Your task to perform on an android device: Open settings on Google Maps Image 0: 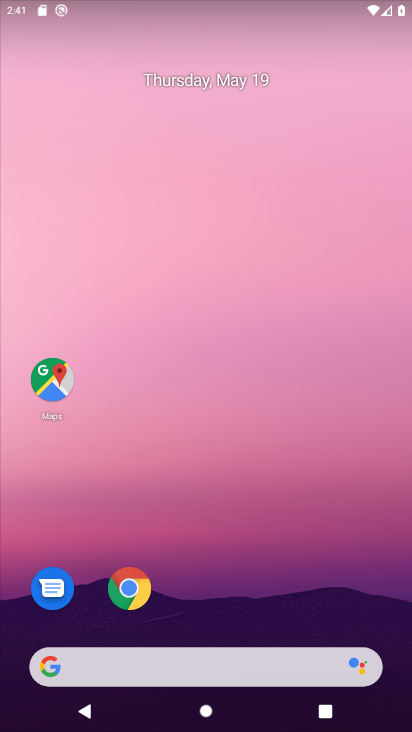
Step 0: click (52, 385)
Your task to perform on an android device: Open settings on Google Maps Image 1: 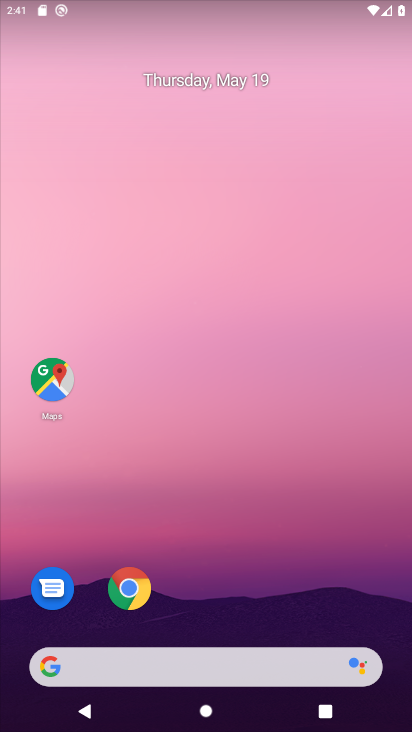
Step 1: click (52, 385)
Your task to perform on an android device: Open settings on Google Maps Image 2: 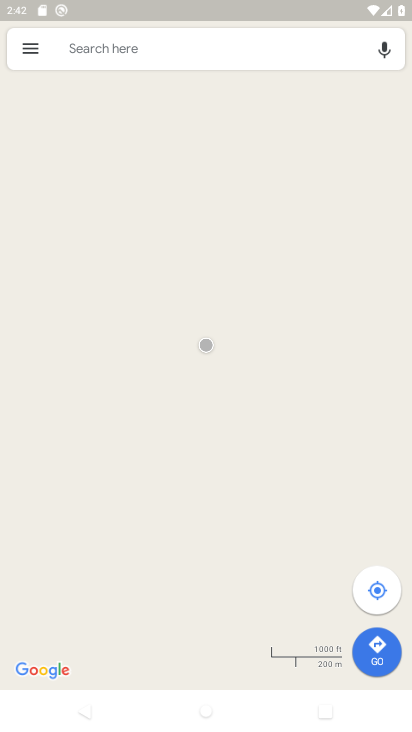
Step 2: click (24, 51)
Your task to perform on an android device: Open settings on Google Maps Image 3: 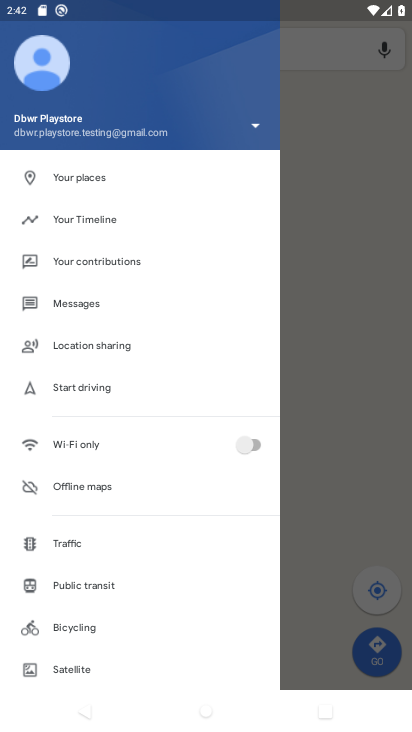
Step 3: drag from (132, 615) to (174, 282)
Your task to perform on an android device: Open settings on Google Maps Image 4: 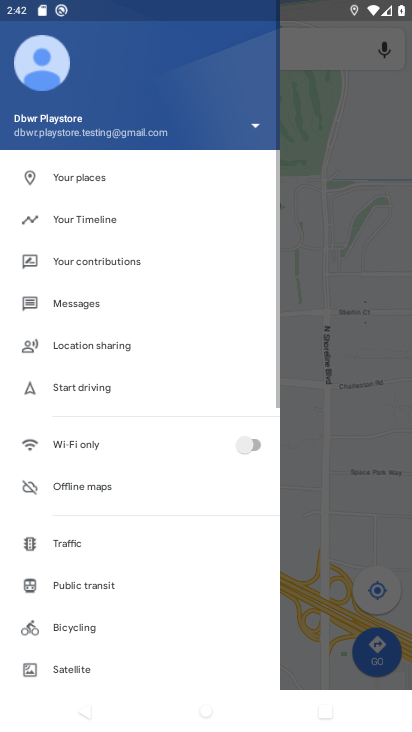
Step 4: drag from (121, 637) to (74, 184)
Your task to perform on an android device: Open settings on Google Maps Image 5: 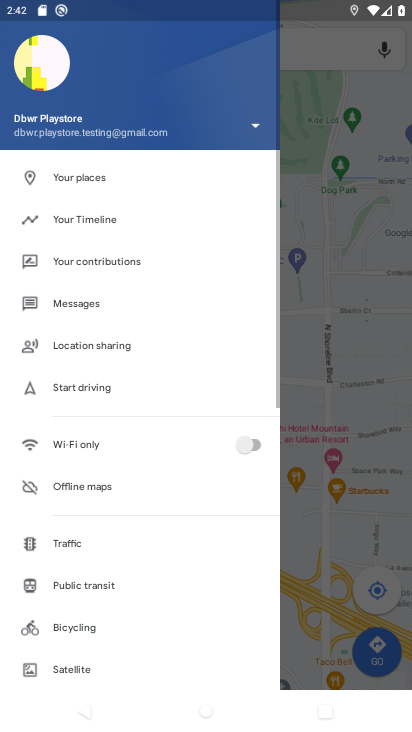
Step 5: drag from (66, 600) to (161, 90)
Your task to perform on an android device: Open settings on Google Maps Image 6: 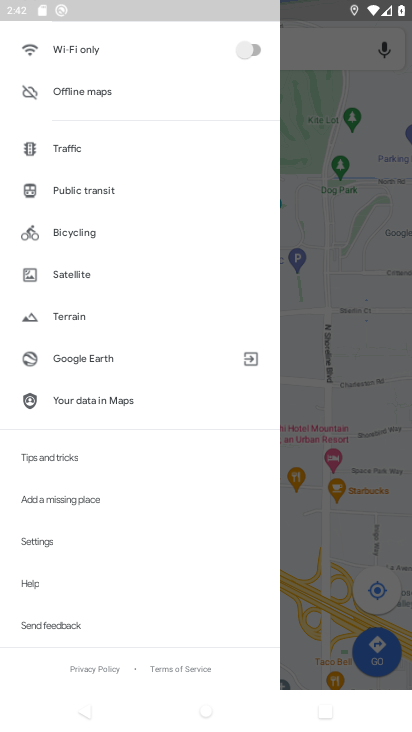
Step 6: click (30, 540)
Your task to perform on an android device: Open settings on Google Maps Image 7: 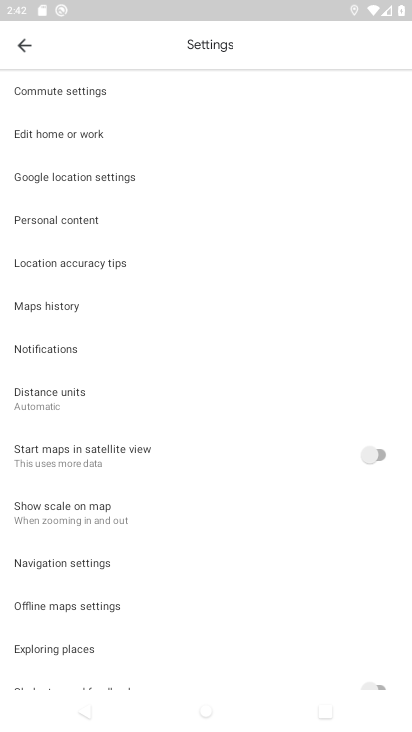
Step 7: task complete